Your task to perform on an android device: Open notification settings Image 0: 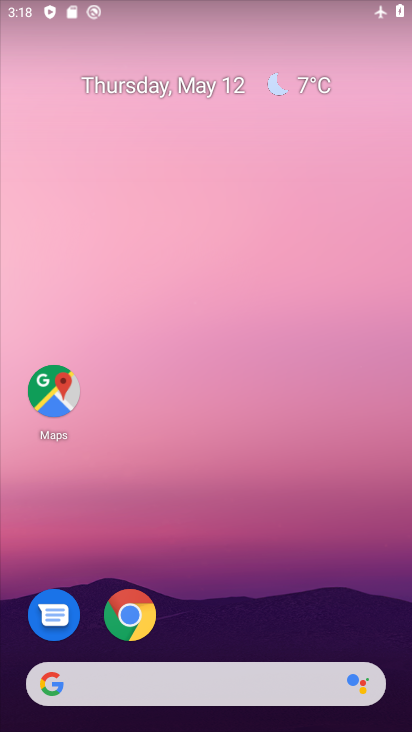
Step 0: drag from (327, 595) to (310, 44)
Your task to perform on an android device: Open notification settings Image 1: 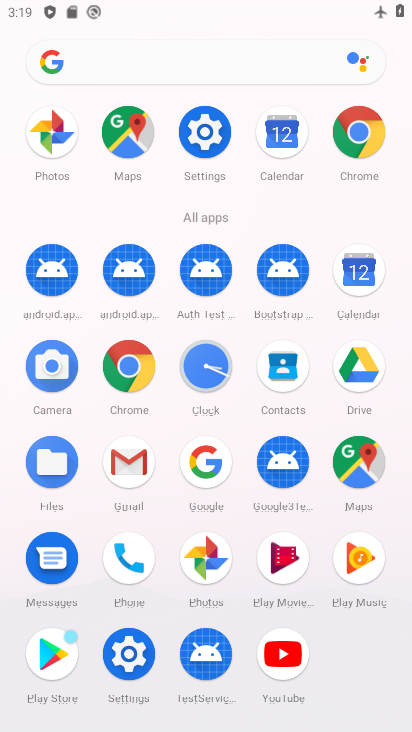
Step 1: click (205, 135)
Your task to perform on an android device: Open notification settings Image 2: 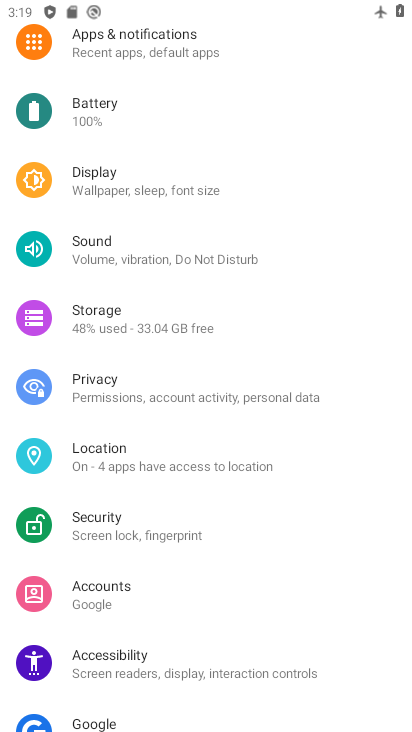
Step 2: click (132, 49)
Your task to perform on an android device: Open notification settings Image 3: 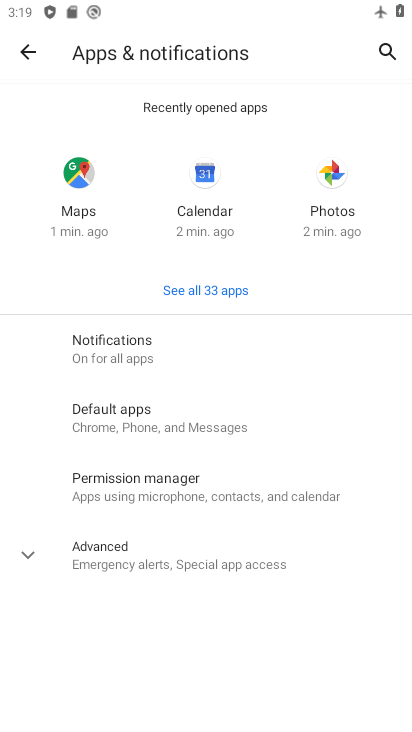
Step 3: task complete